Your task to perform on an android device: Show the shopping cart on amazon. Search for "dell alienware" on amazon, select the first entry, add it to the cart, then select checkout. Image 0: 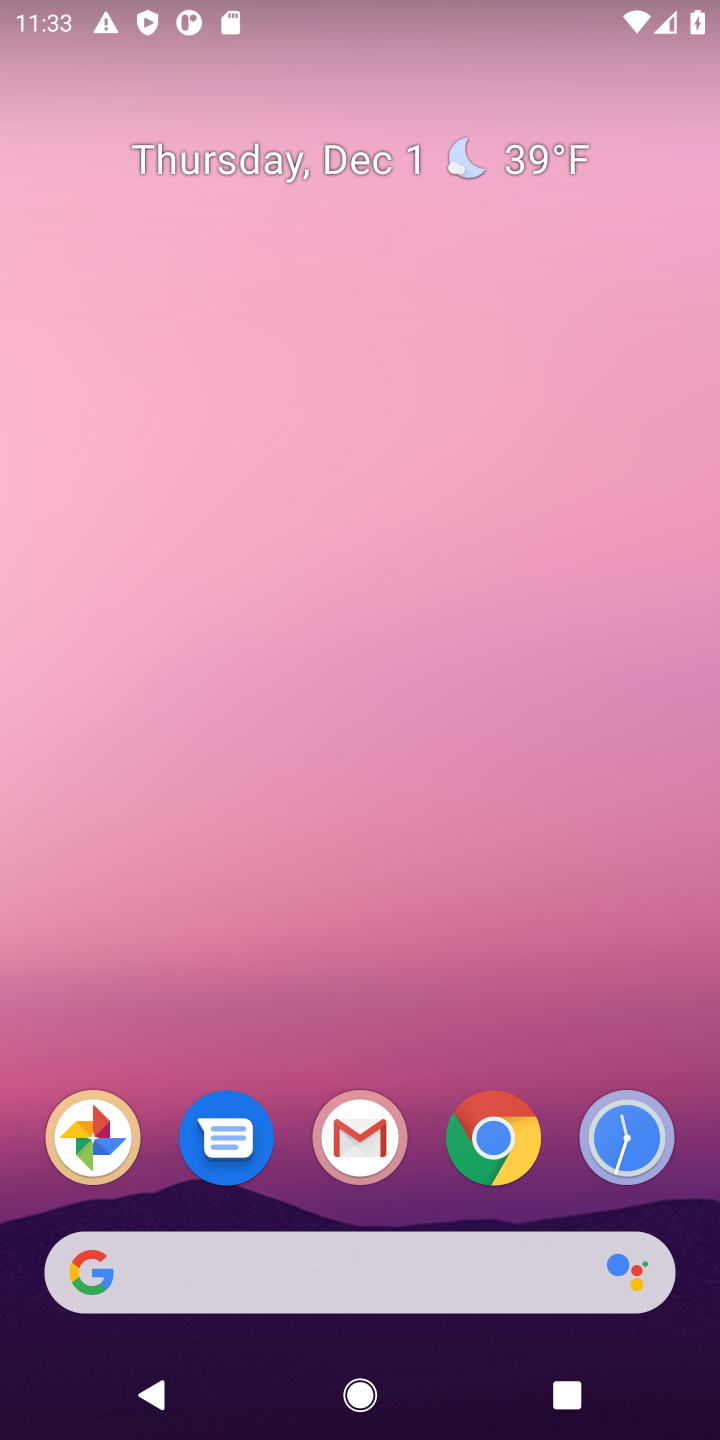
Step 0: click (588, 730)
Your task to perform on an android device: Show the shopping cart on amazon. Search for "dell alienware" on amazon, select the first entry, add it to the cart, then select checkout. Image 1: 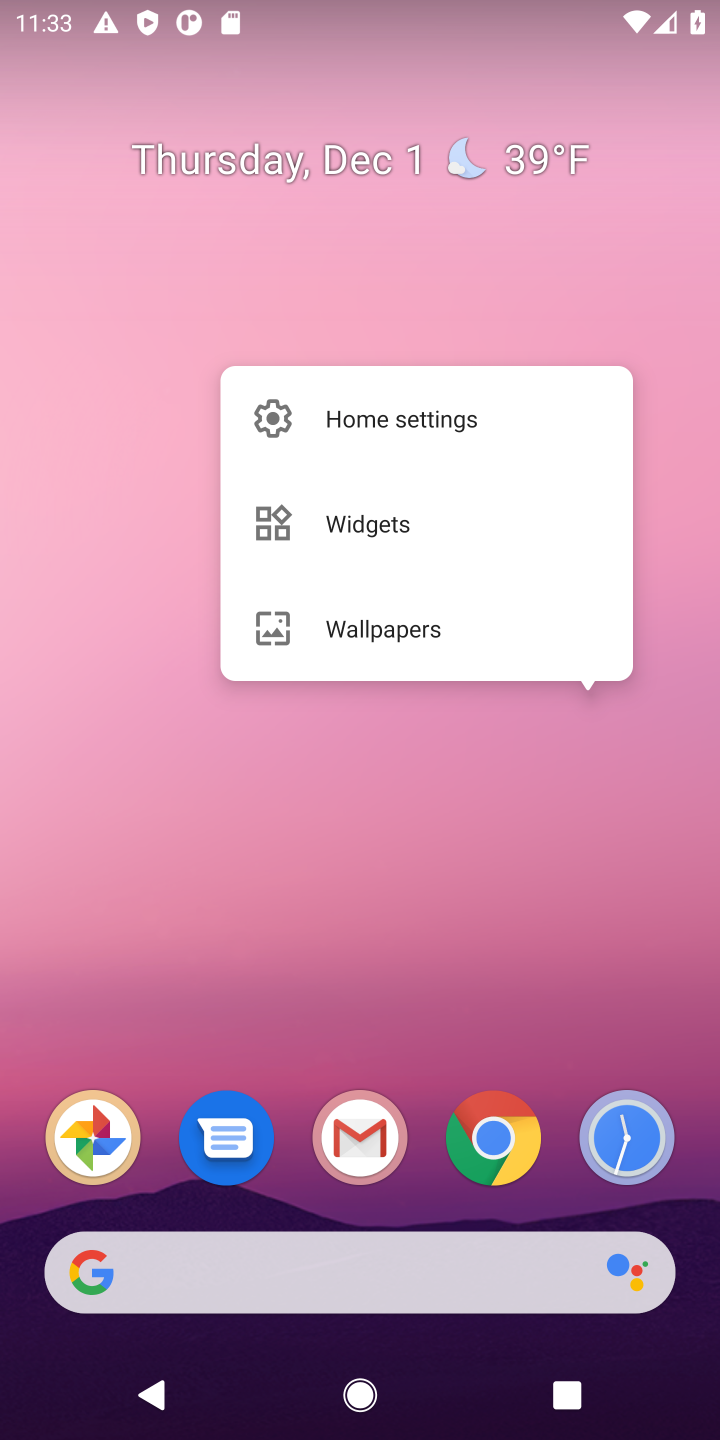
Step 1: drag from (332, 943) to (347, 521)
Your task to perform on an android device: Show the shopping cart on amazon. Search for "dell alienware" on amazon, select the first entry, add it to the cart, then select checkout. Image 2: 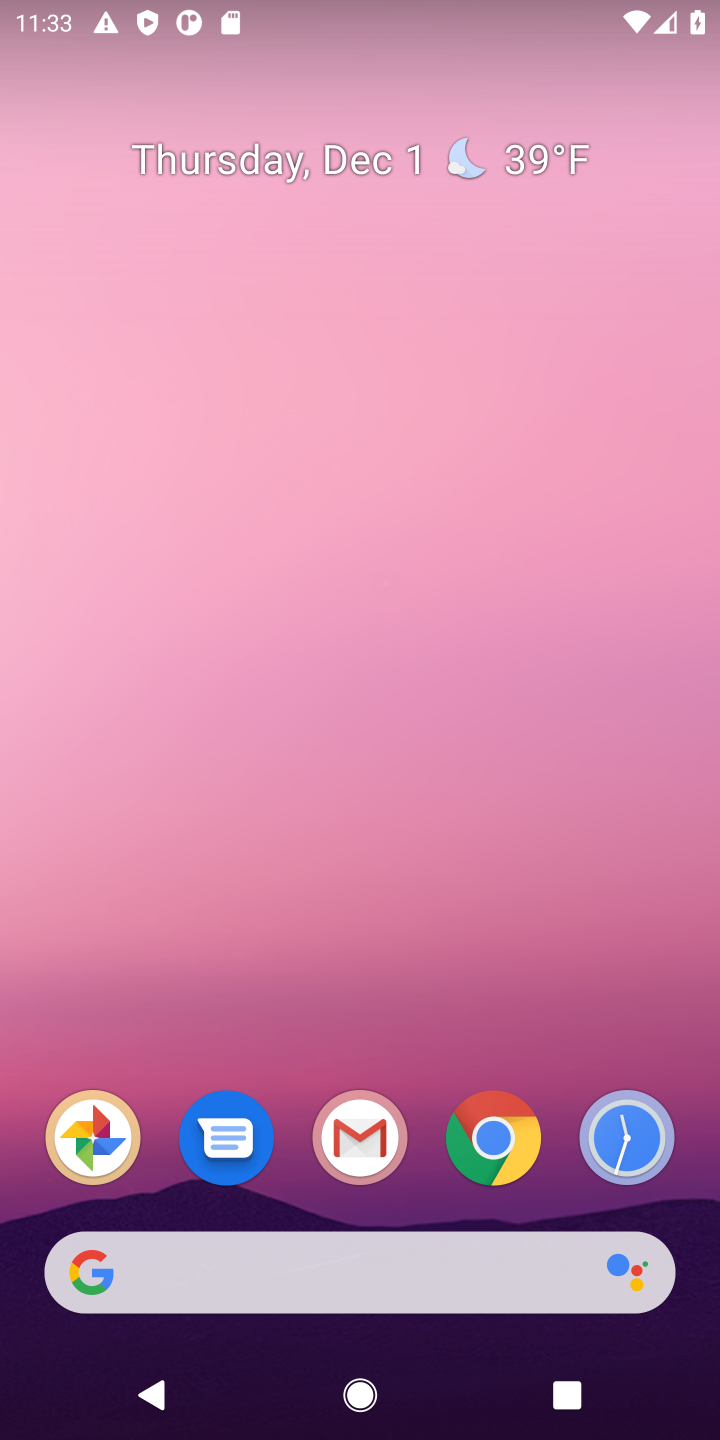
Step 2: drag from (386, 1121) to (445, 297)
Your task to perform on an android device: Show the shopping cart on amazon. Search for "dell alienware" on amazon, select the first entry, add it to the cart, then select checkout. Image 3: 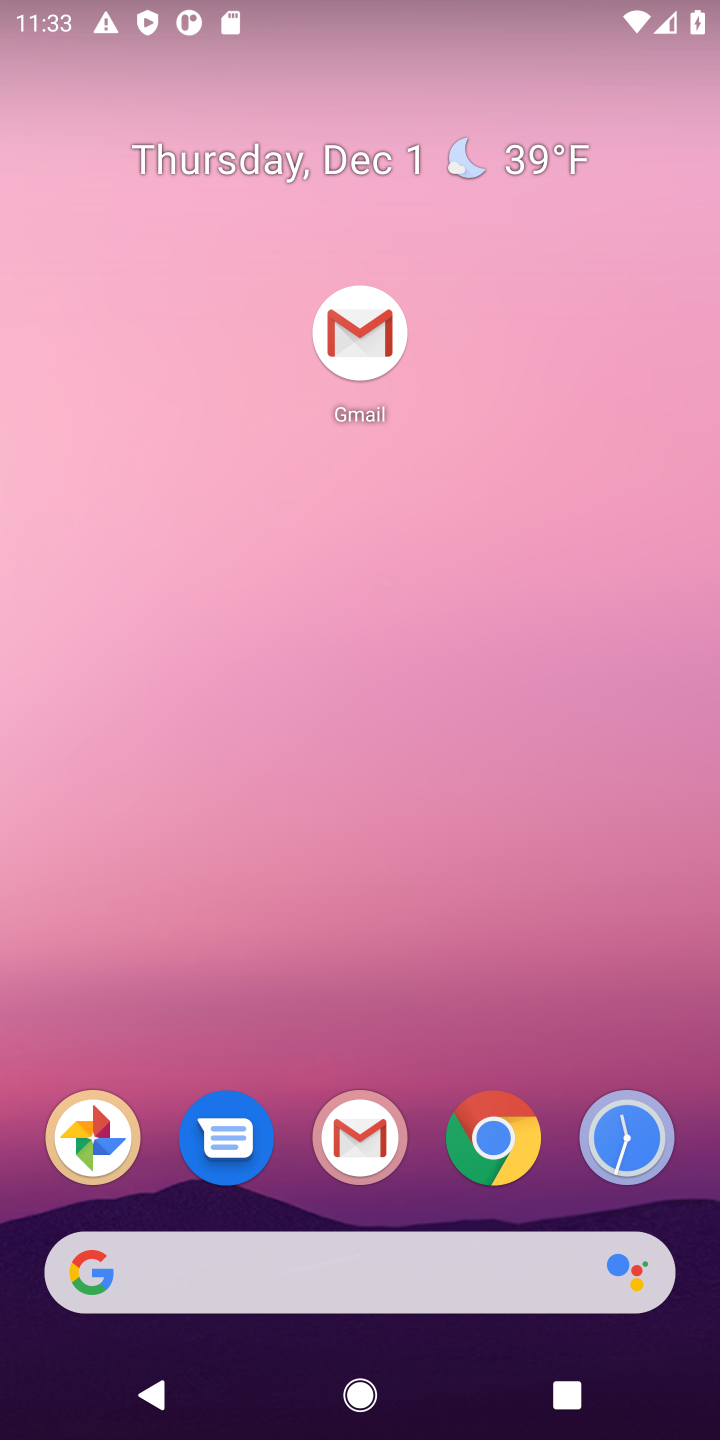
Step 3: drag from (527, 1075) to (638, 164)
Your task to perform on an android device: Show the shopping cart on amazon. Search for "dell alienware" on amazon, select the first entry, add it to the cart, then select checkout. Image 4: 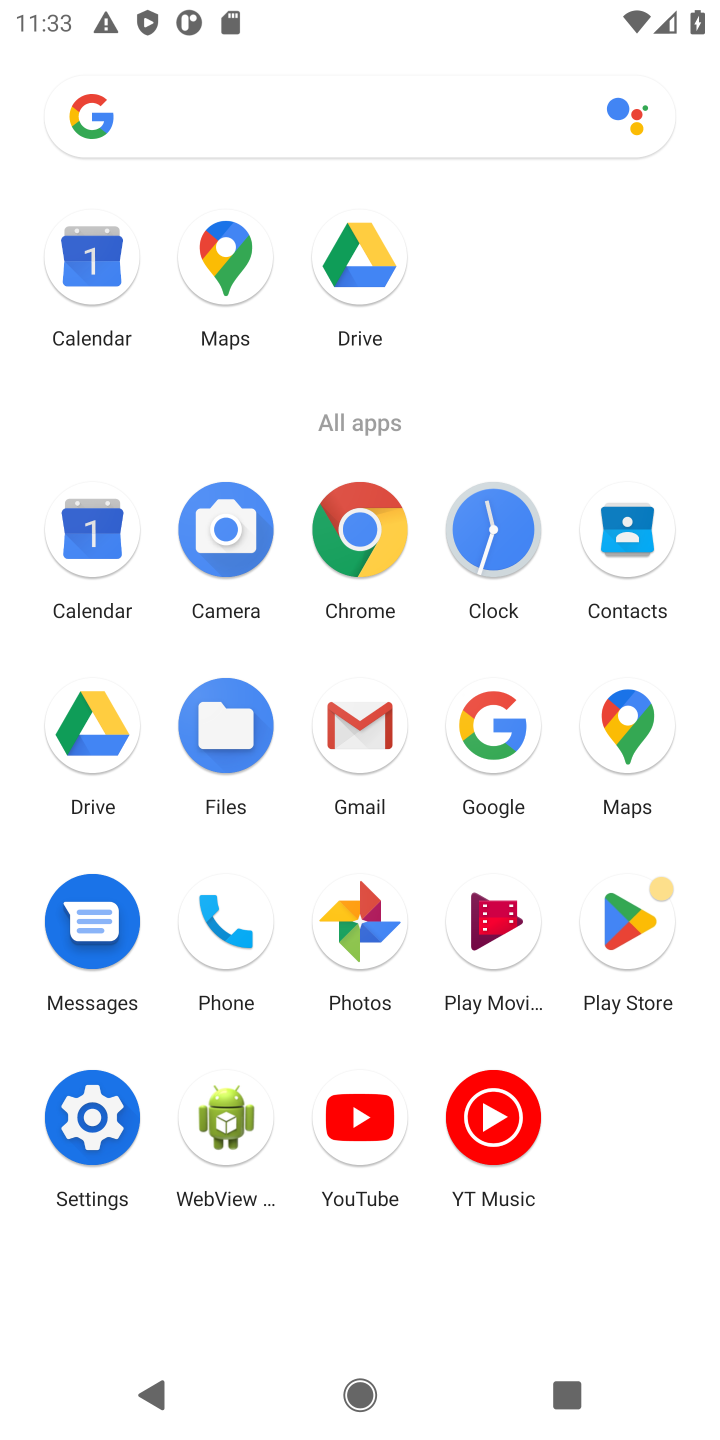
Step 4: click (495, 755)
Your task to perform on an android device: Show the shopping cart on amazon. Search for "dell alienware" on amazon, select the first entry, add it to the cart, then select checkout. Image 5: 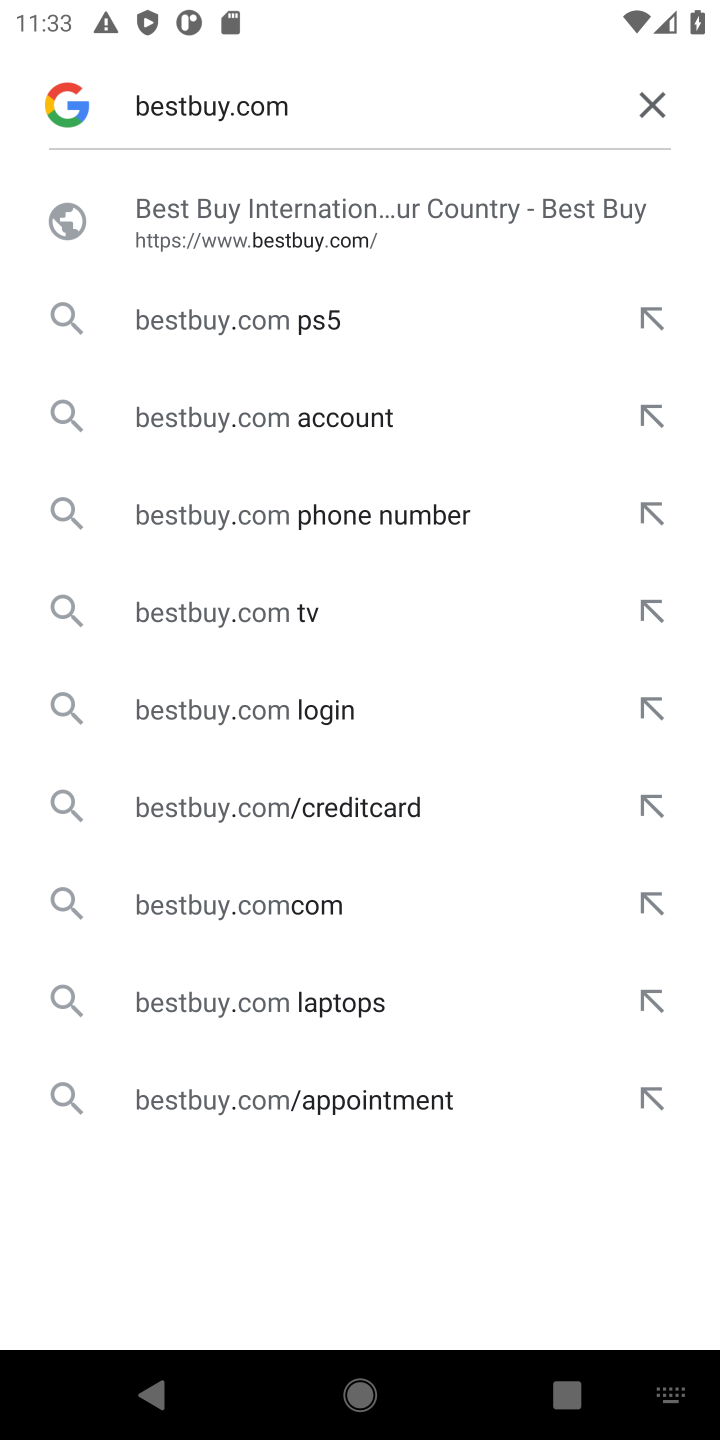
Step 5: click (643, 105)
Your task to perform on an android device: Show the shopping cart on amazon. Search for "dell alienware" on amazon, select the first entry, add it to the cart, then select checkout. Image 6: 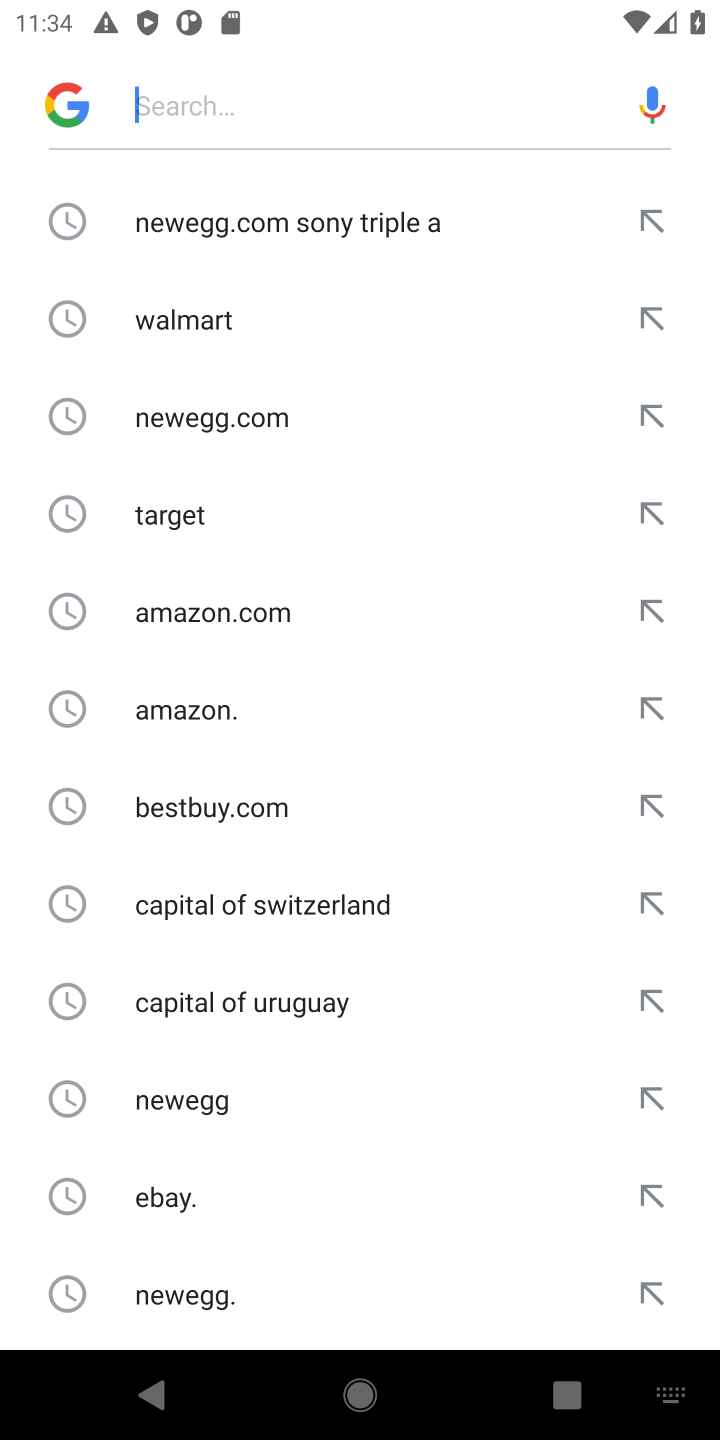
Step 6: type "amazon"
Your task to perform on an android device: Show the shopping cart on amazon. Search for "dell alienware" on amazon, select the first entry, add it to the cart, then select checkout. Image 7: 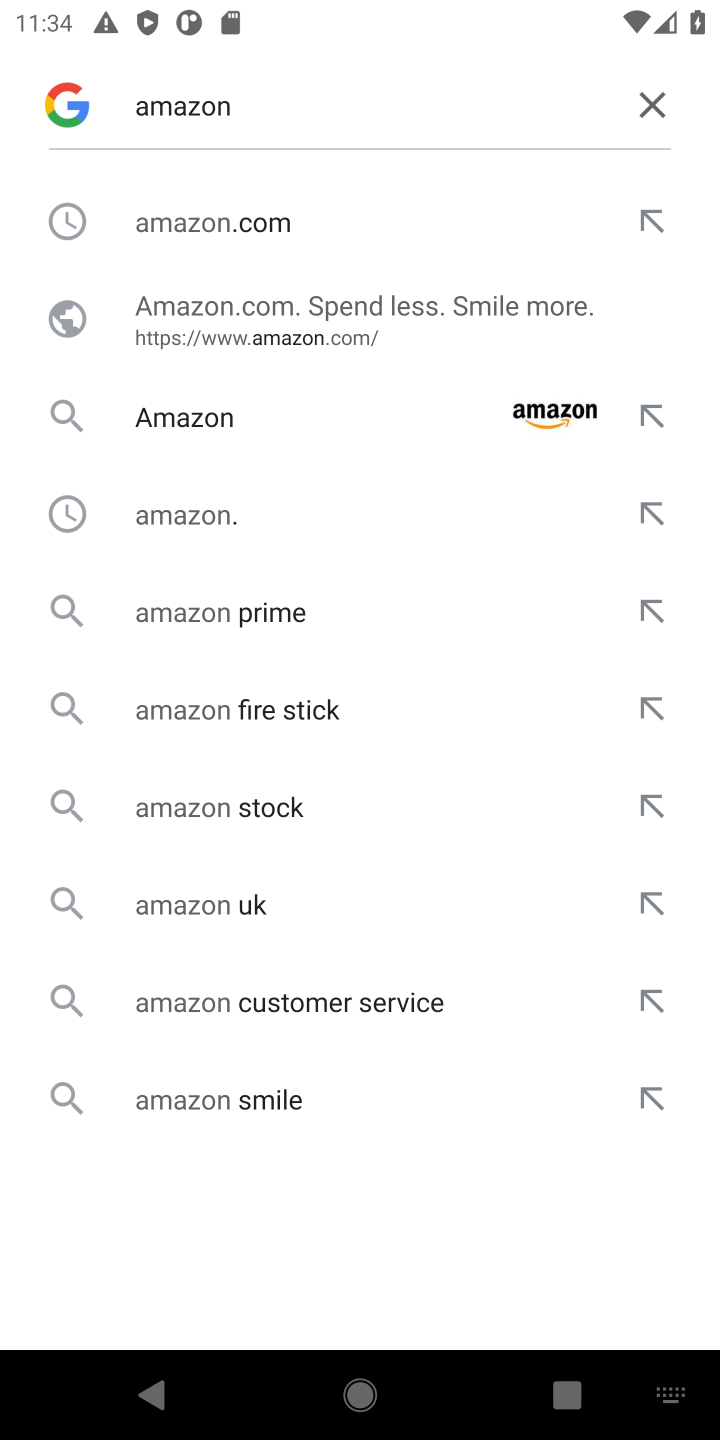
Step 7: click (325, 334)
Your task to perform on an android device: Show the shopping cart on amazon. Search for "dell alienware" on amazon, select the first entry, add it to the cart, then select checkout. Image 8: 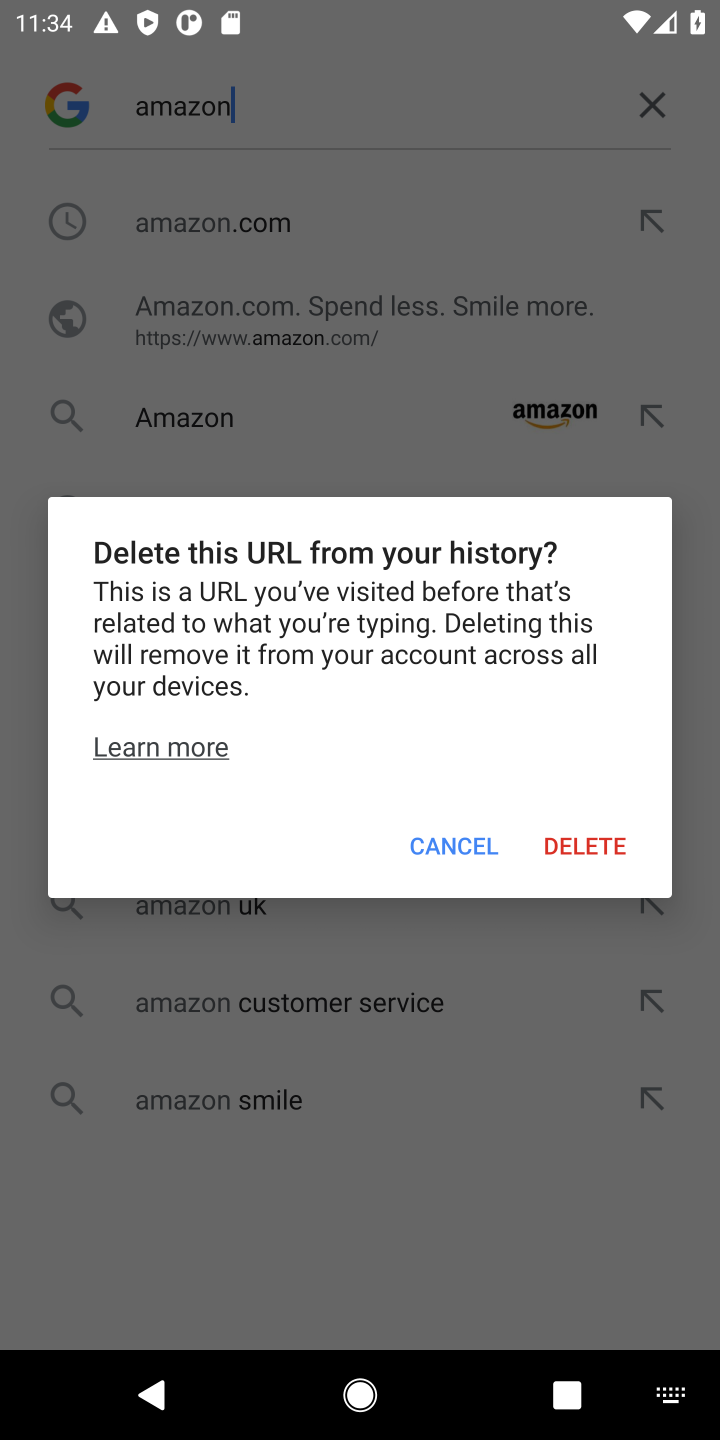
Step 8: click (560, 848)
Your task to perform on an android device: Show the shopping cart on amazon. Search for "dell alienware" on amazon, select the first entry, add it to the cart, then select checkout. Image 9: 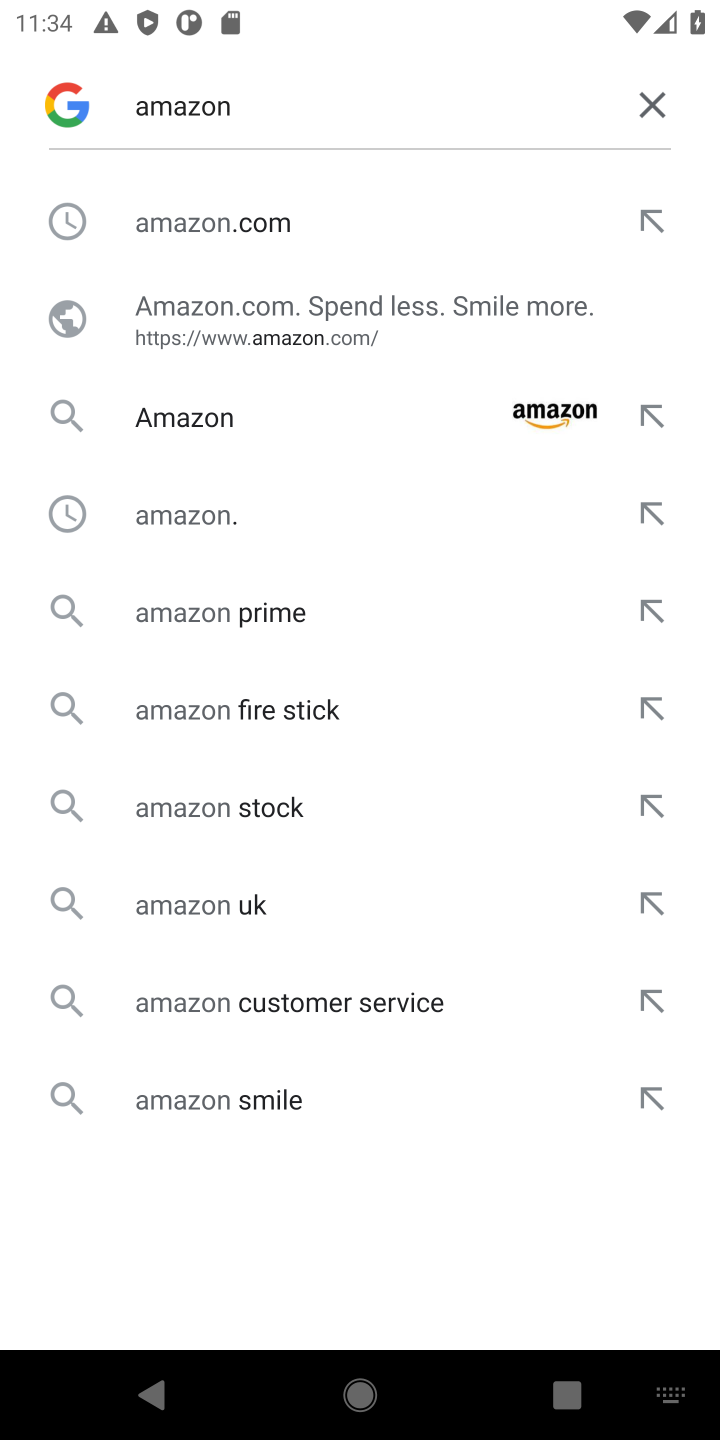
Step 9: click (419, 352)
Your task to perform on an android device: Show the shopping cart on amazon. Search for "dell alienware" on amazon, select the first entry, add it to the cart, then select checkout. Image 10: 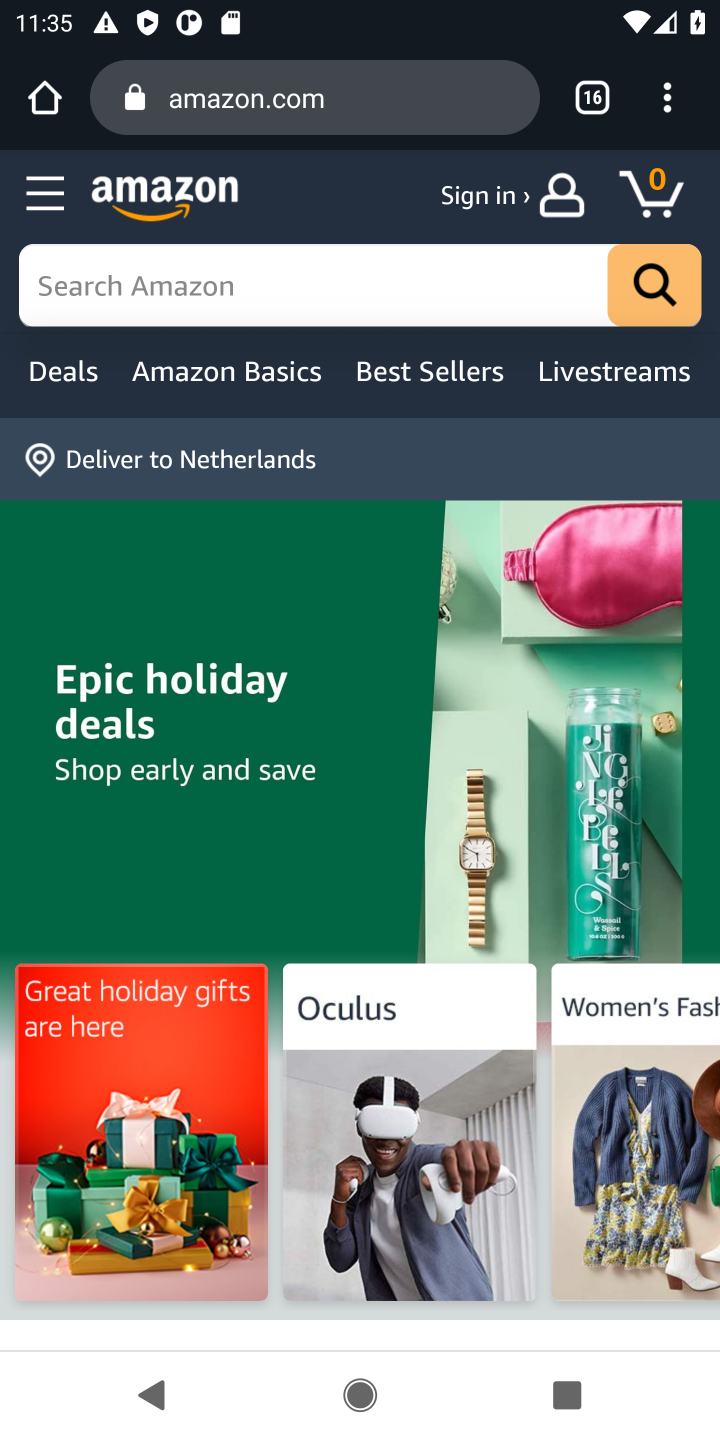
Step 10: click (435, 296)
Your task to perform on an android device: Show the shopping cart on amazon. Search for "dell alienware" on amazon, select the first entry, add it to the cart, then select checkout. Image 11: 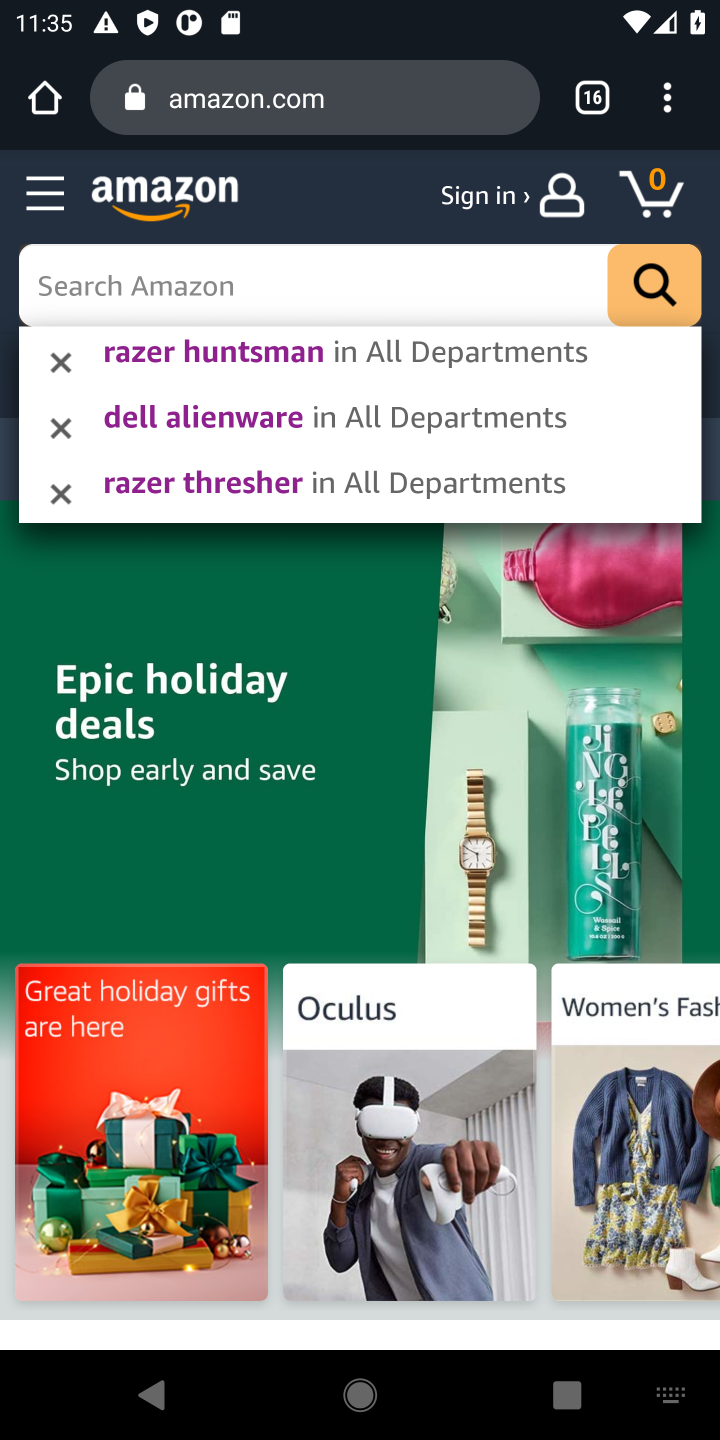
Step 11: type "dell alienware"
Your task to perform on an android device: Show the shopping cart on amazon. Search for "dell alienware" on amazon, select the first entry, add it to the cart, then select checkout. Image 12: 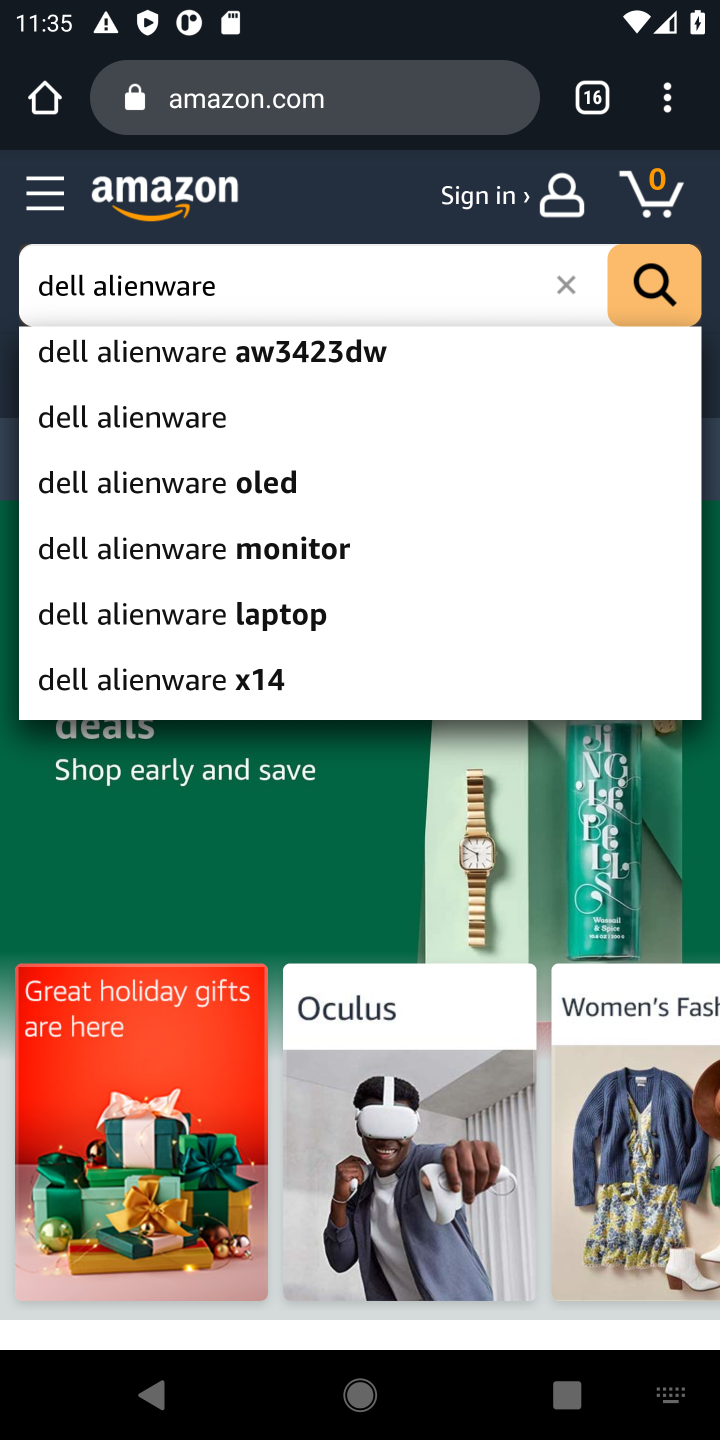
Step 12: click (137, 410)
Your task to perform on an android device: Show the shopping cart on amazon. Search for "dell alienware" on amazon, select the first entry, add it to the cart, then select checkout. Image 13: 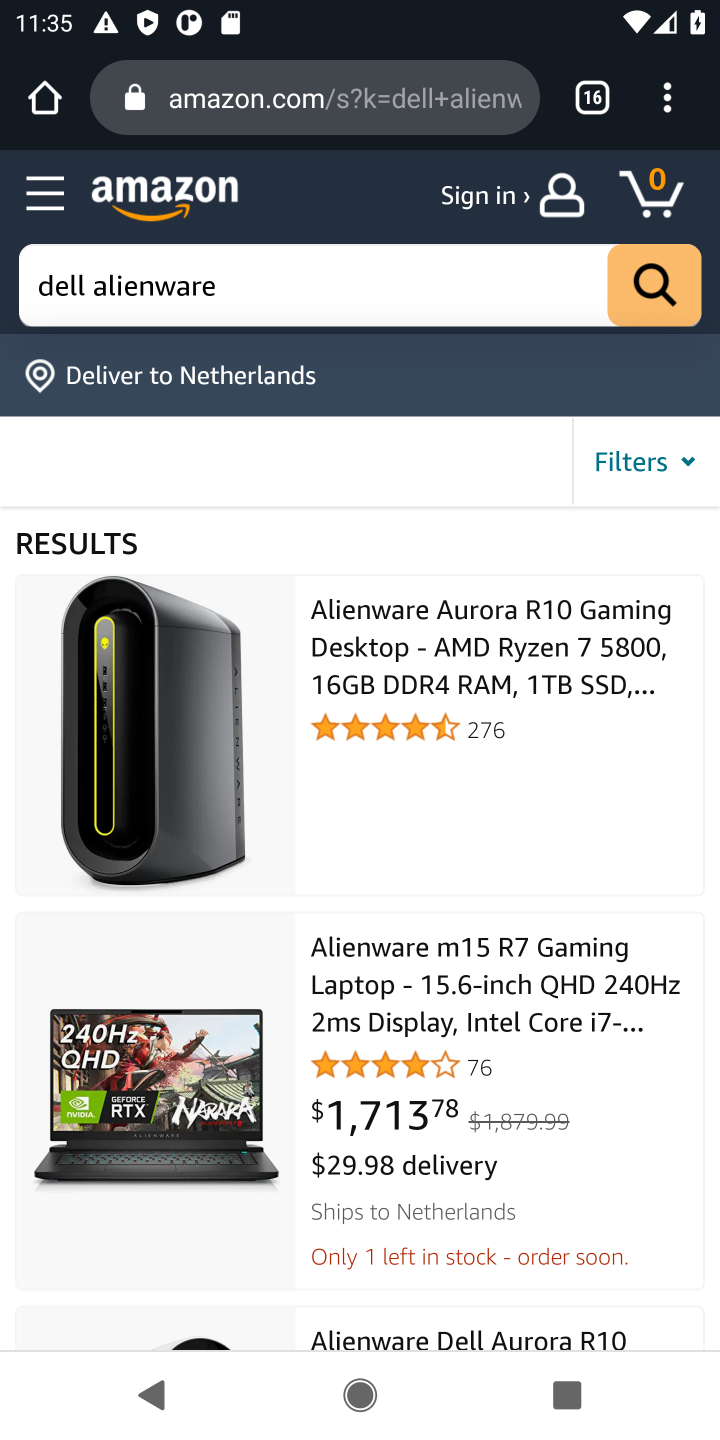
Step 13: click (528, 676)
Your task to perform on an android device: Show the shopping cart on amazon. Search for "dell alienware" on amazon, select the first entry, add it to the cart, then select checkout. Image 14: 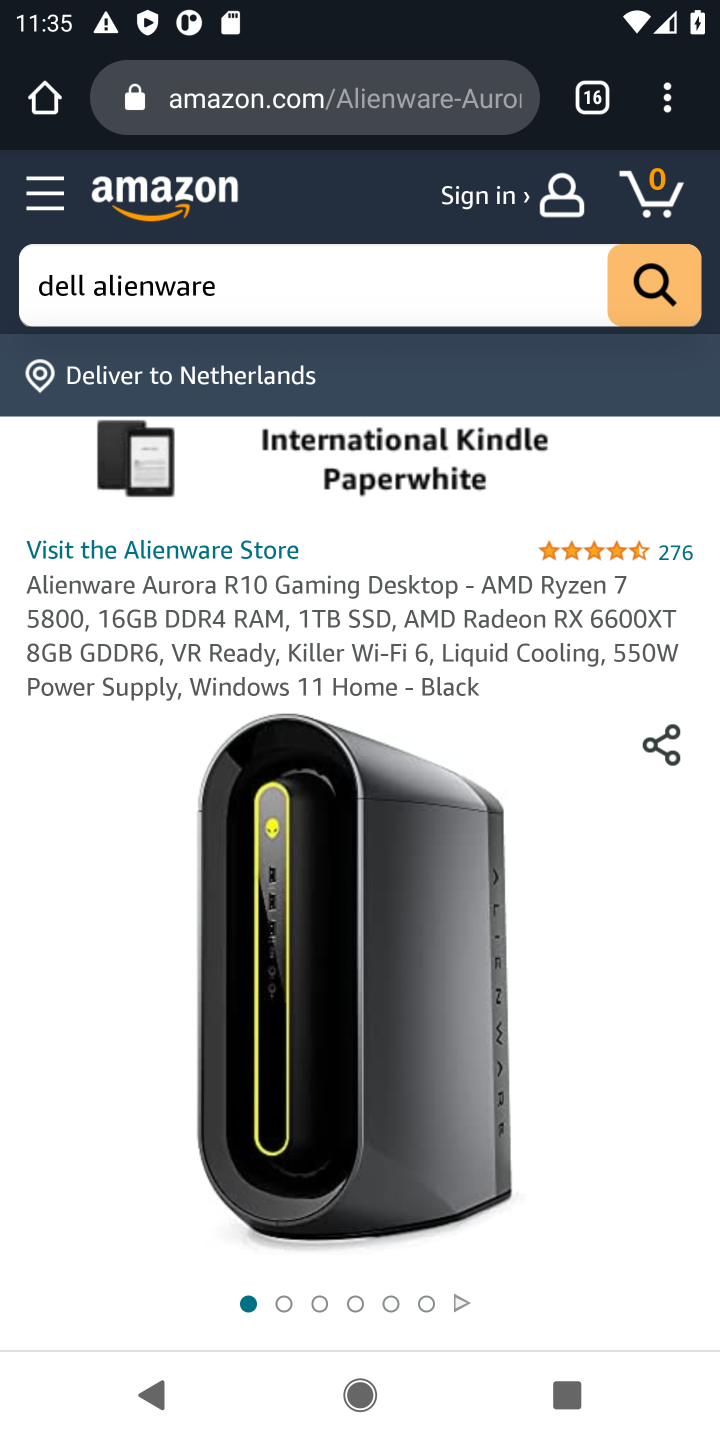
Step 14: drag from (377, 1123) to (432, 562)
Your task to perform on an android device: Show the shopping cart on amazon. Search for "dell alienware" on amazon, select the first entry, add it to the cart, then select checkout. Image 15: 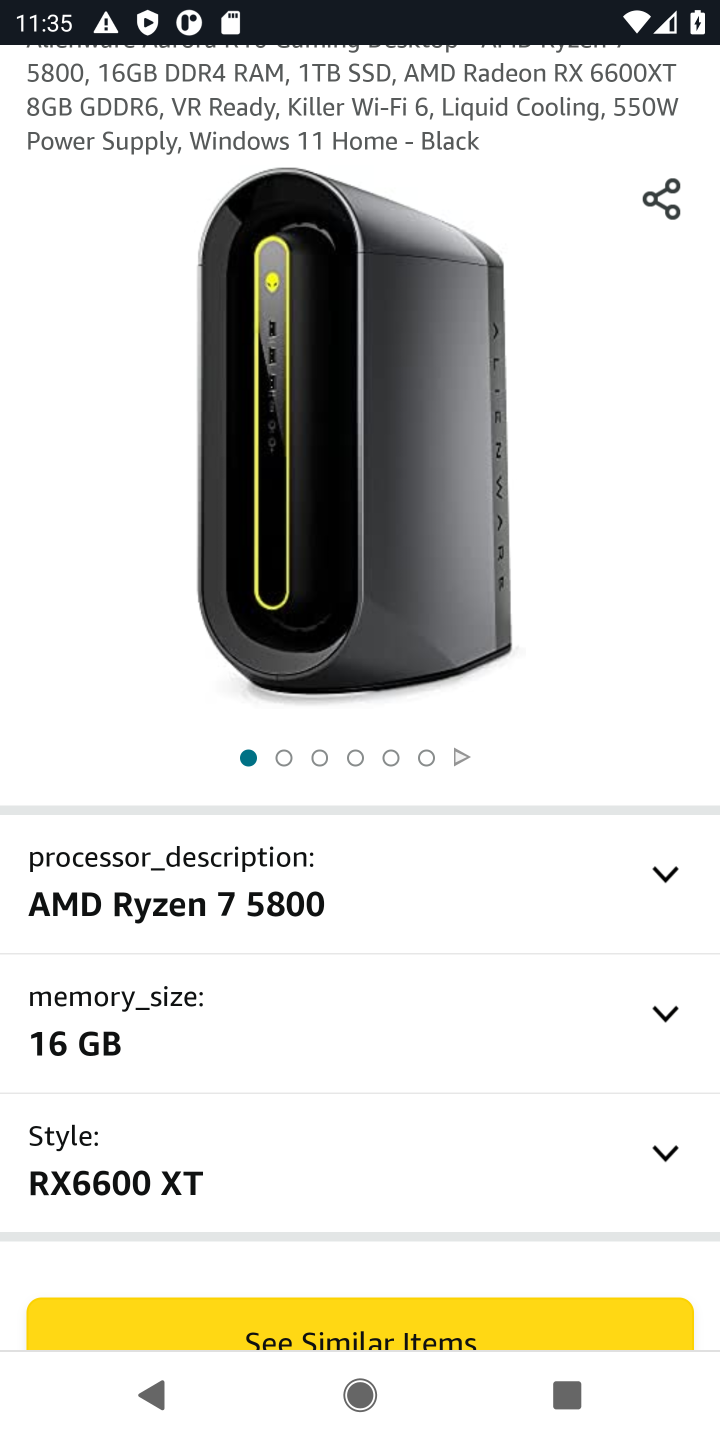
Step 15: drag from (402, 1057) to (428, 736)
Your task to perform on an android device: Show the shopping cart on amazon. Search for "dell alienware" on amazon, select the first entry, add it to the cart, then select checkout. Image 16: 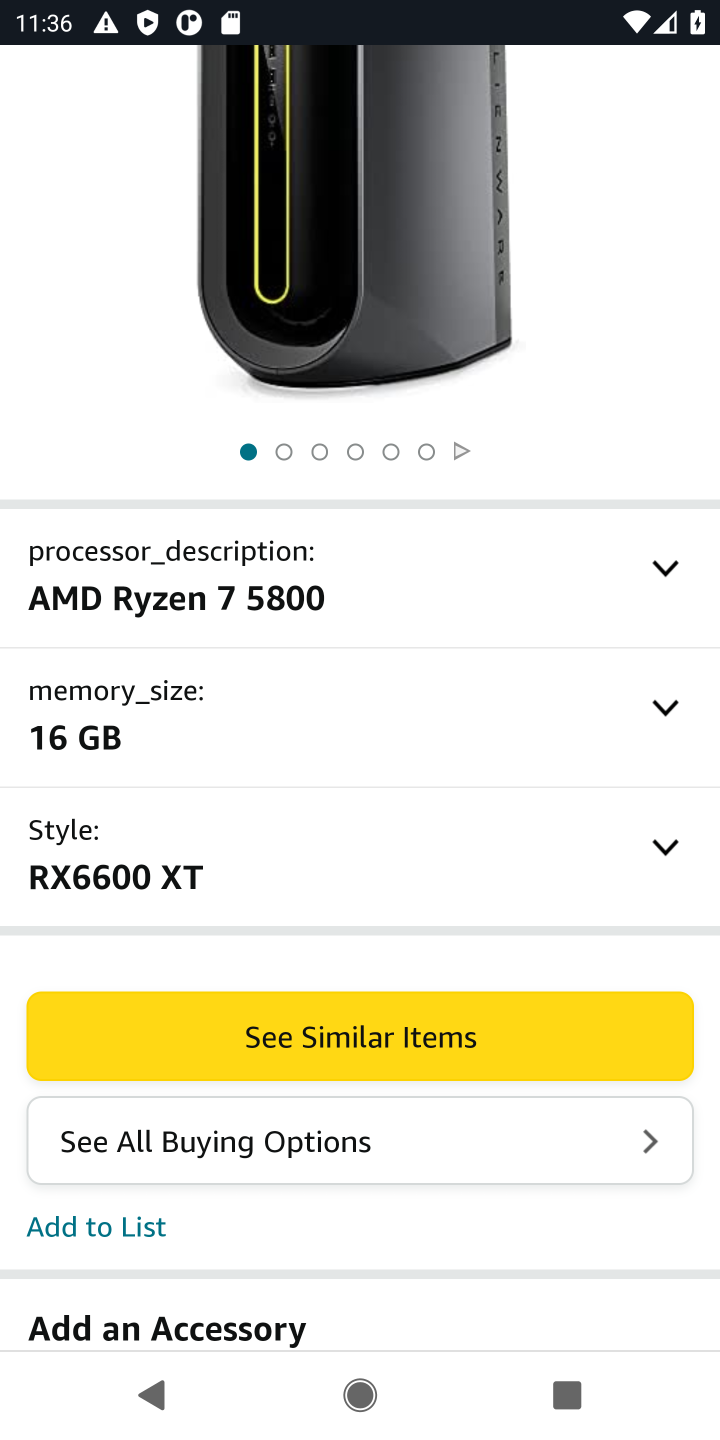
Step 16: click (426, 437)
Your task to perform on an android device: Show the shopping cart on amazon. Search for "dell alienware" on amazon, select the first entry, add it to the cart, then select checkout. Image 17: 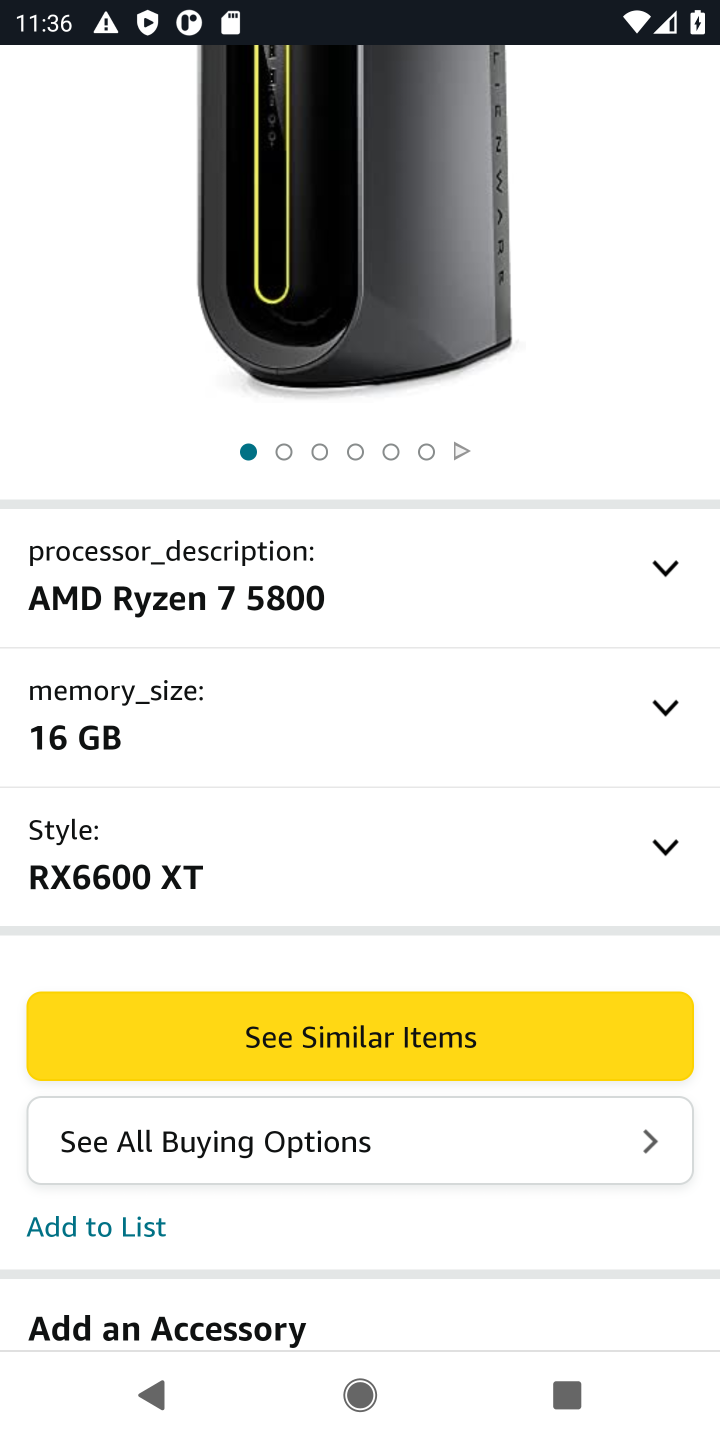
Step 17: task complete